Your task to perform on an android device: set the timer Image 0: 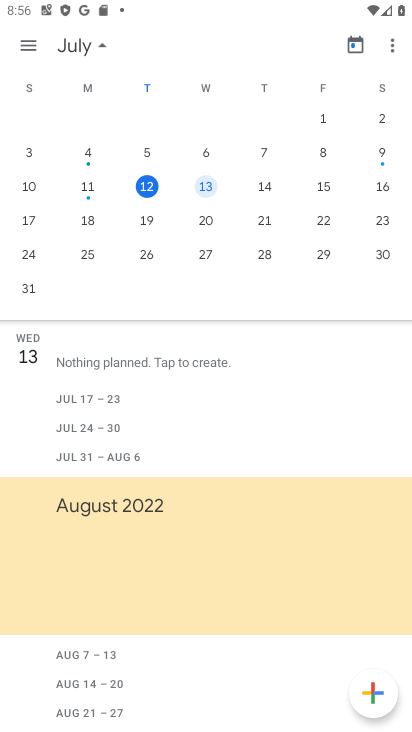
Step 0: press home button
Your task to perform on an android device: set the timer Image 1: 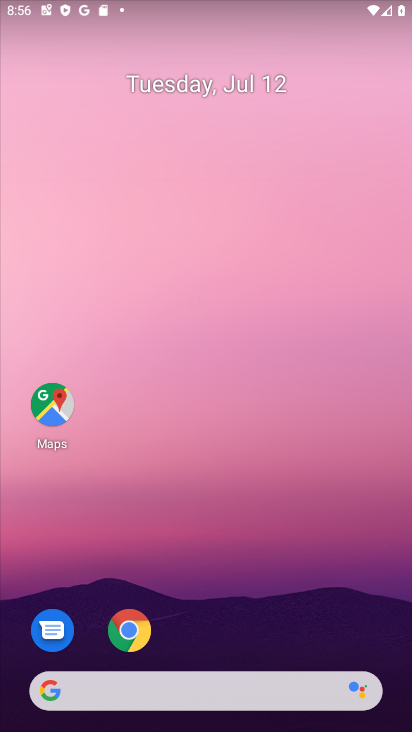
Step 1: drag from (219, 508) to (231, 75)
Your task to perform on an android device: set the timer Image 2: 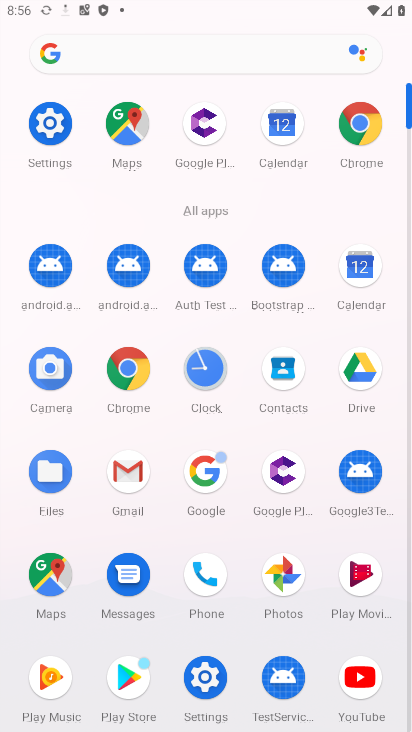
Step 2: click (205, 371)
Your task to perform on an android device: set the timer Image 3: 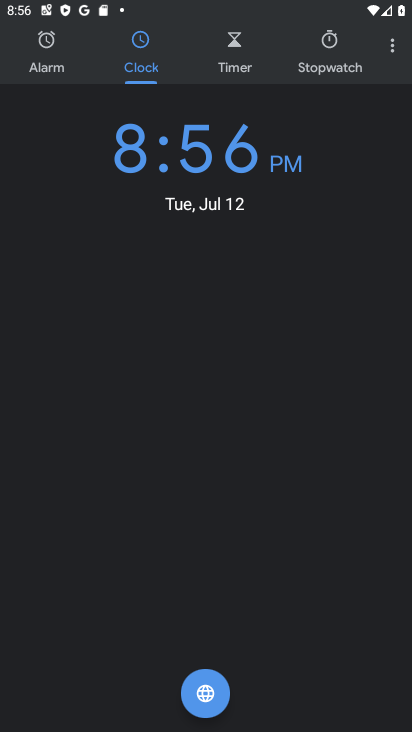
Step 3: click (239, 40)
Your task to perform on an android device: set the timer Image 4: 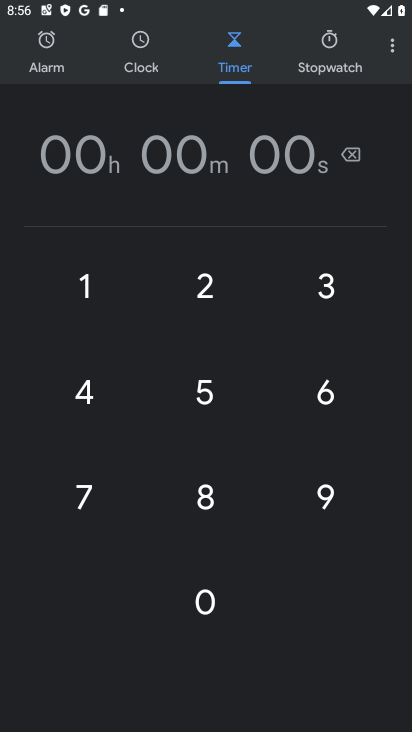
Step 4: click (208, 293)
Your task to perform on an android device: set the timer Image 5: 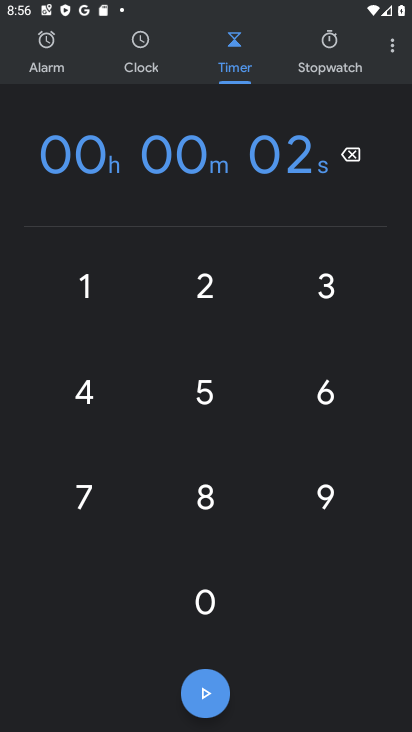
Step 5: click (207, 298)
Your task to perform on an android device: set the timer Image 6: 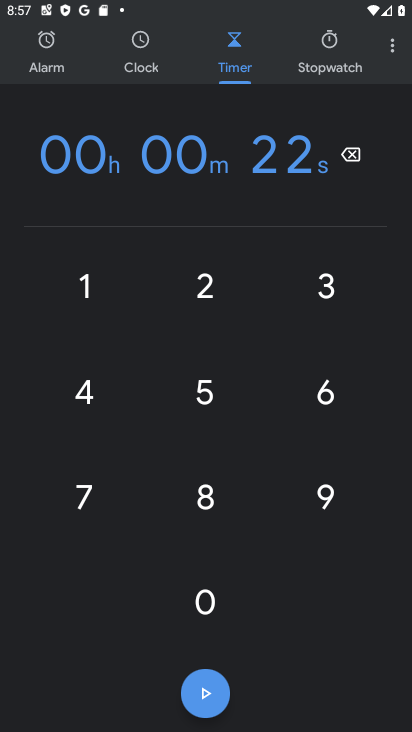
Step 6: task complete